Your task to perform on an android device: toggle location history Image 0: 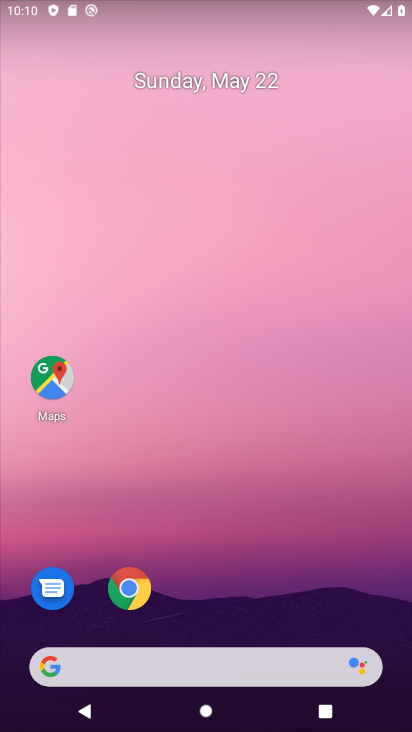
Step 0: drag from (220, 728) to (185, 154)
Your task to perform on an android device: toggle location history Image 1: 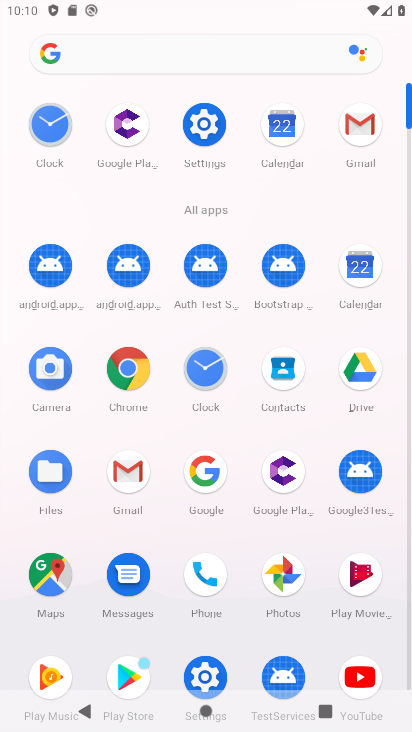
Step 1: click (197, 128)
Your task to perform on an android device: toggle location history Image 2: 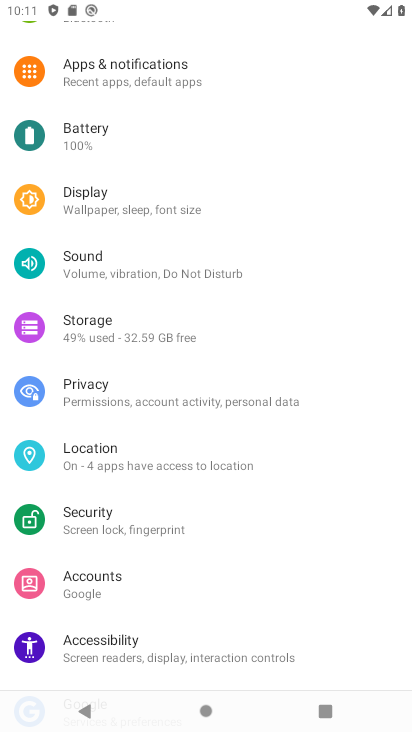
Step 2: click (136, 450)
Your task to perform on an android device: toggle location history Image 3: 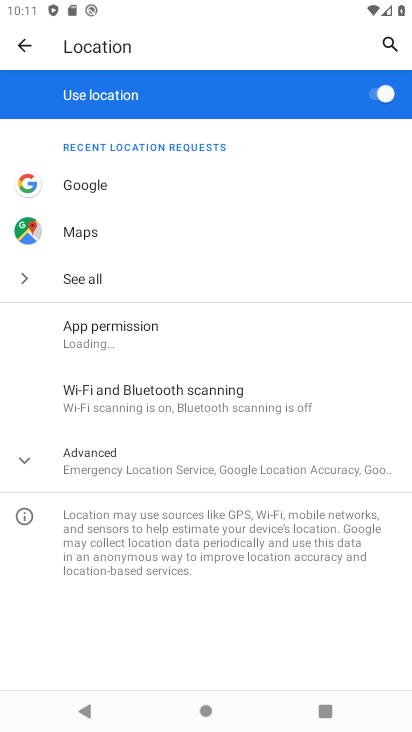
Step 3: click (144, 467)
Your task to perform on an android device: toggle location history Image 4: 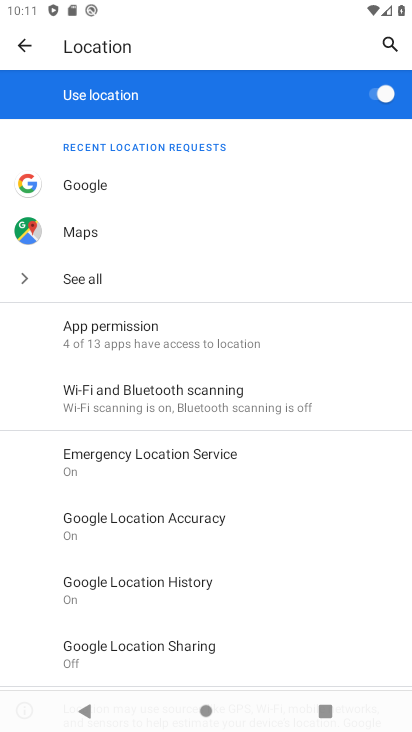
Step 4: click (154, 584)
Your task to perform on an android device: toggle location history Image 5: 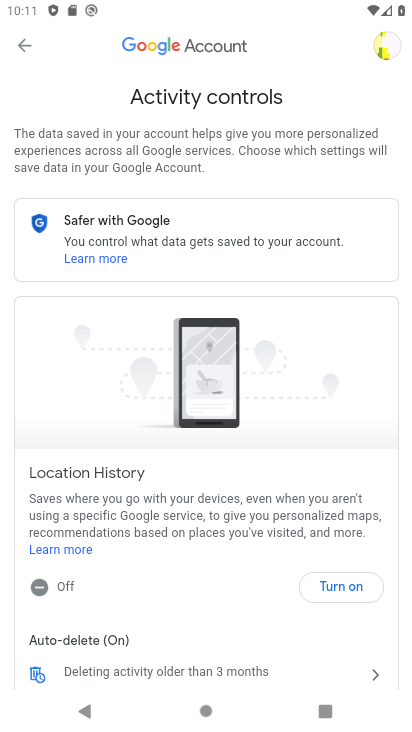
Step 5: click (338, 587)
Your task to perform on an android device: toggle location history Image 6: 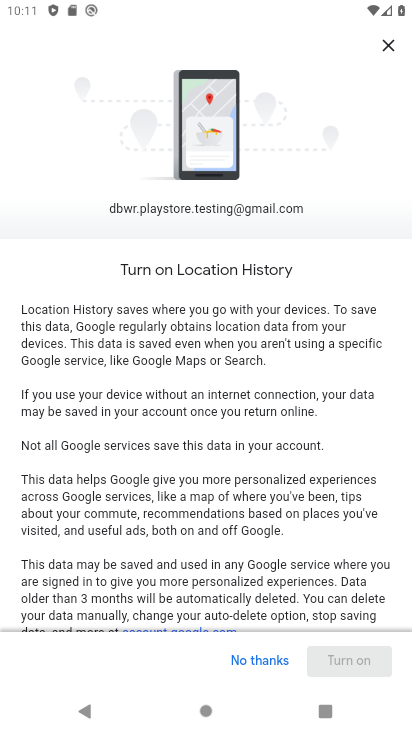
Step 6: drag from (283, 590) to (280, 192)
Your task to perform on an android device: toggle location history Image 7: 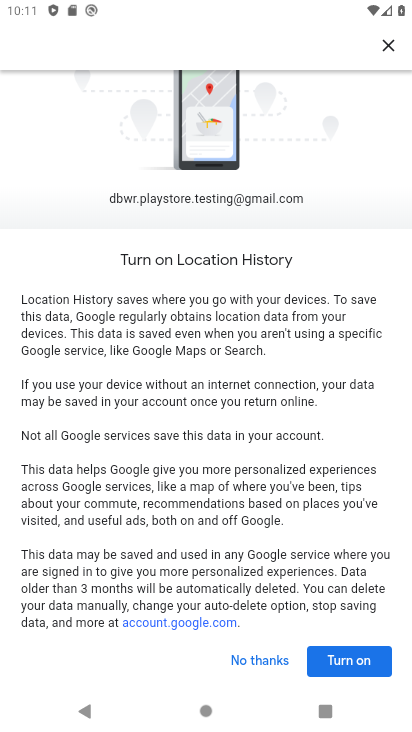
Step 7: click (342, 671)
Your task to perform on an android device: toggle location history Image 8: 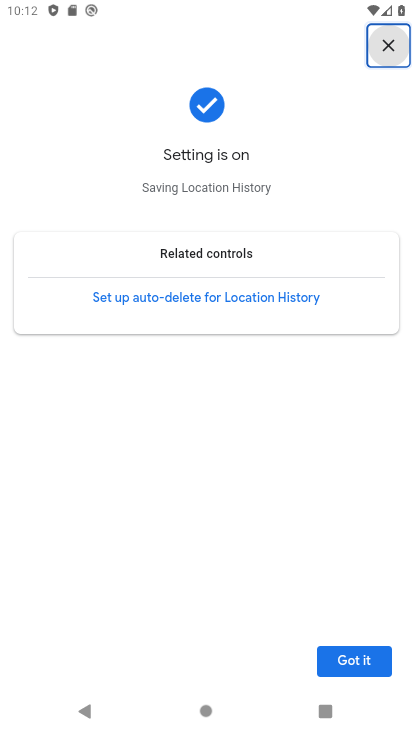
Step 8: task complete